Your task to perform on an android device: Clear all items from cart on ebay. Image 0: 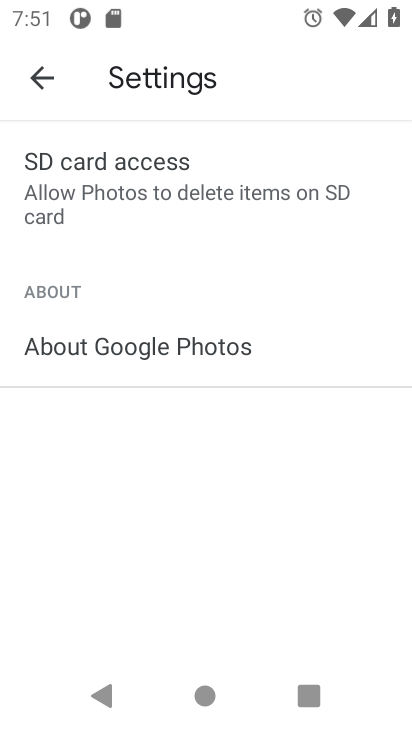
Step 0: press home button
Your task to perform on an android device: Clear all items from cart on ebay. Image 1: 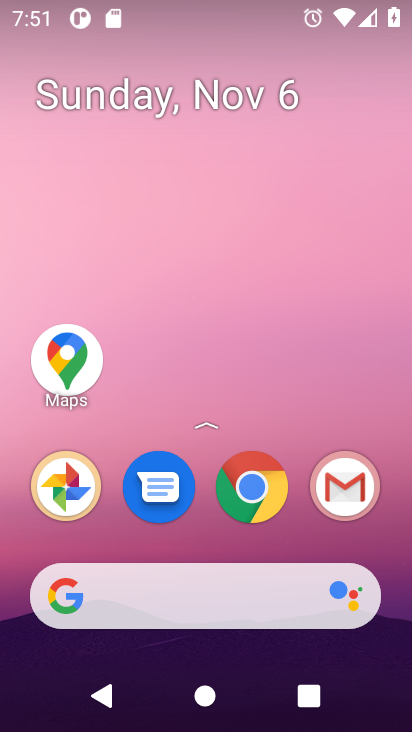
Step 1: click (244, 511)
Your task to perform on an android device: Clear all items from cart on ebay. Image 2: 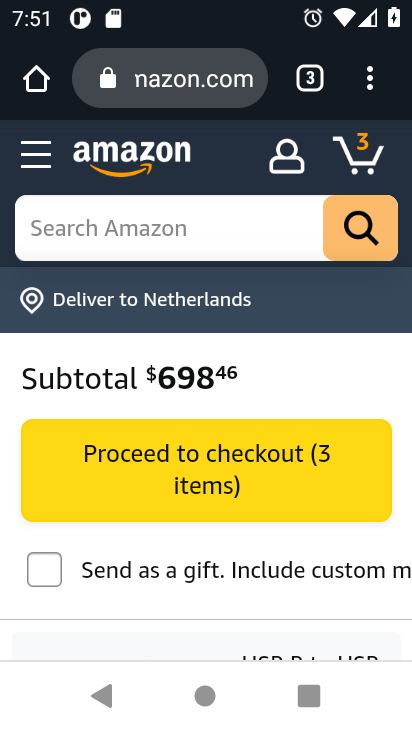
Step 2: click (142, 65)
Your task to perform on an android device: Clear all items from cart on ebay. Image 3: 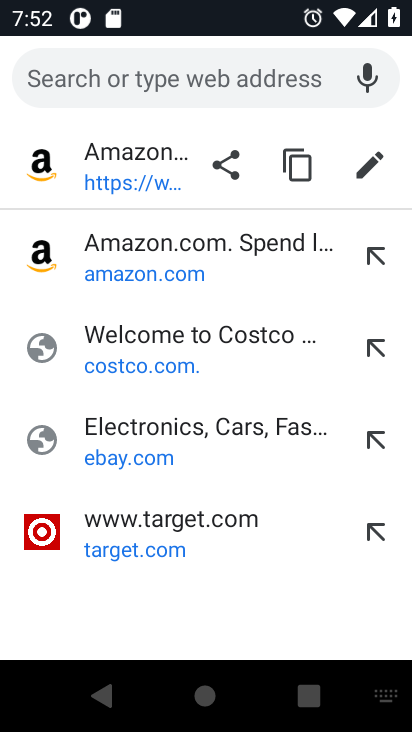
Step 3: click (180, 455)
Your task to perform on an android device: Clear all items from cart on ebay. Image 4: 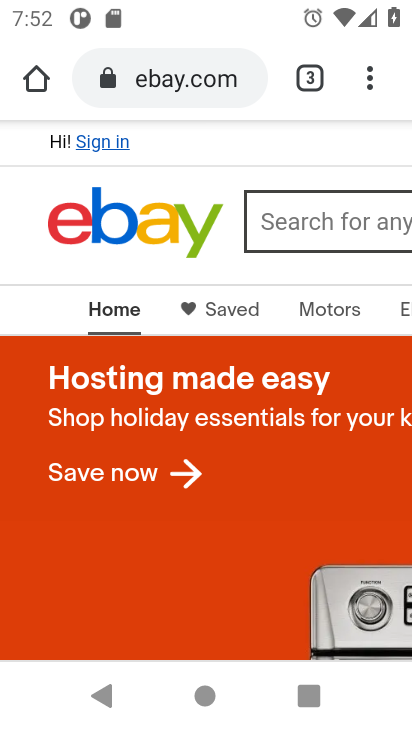
Step 4: drag from (371, 156) to (11, 150)
Your task to perform on an android device: Clear all items from cart on ebay. Image 5: 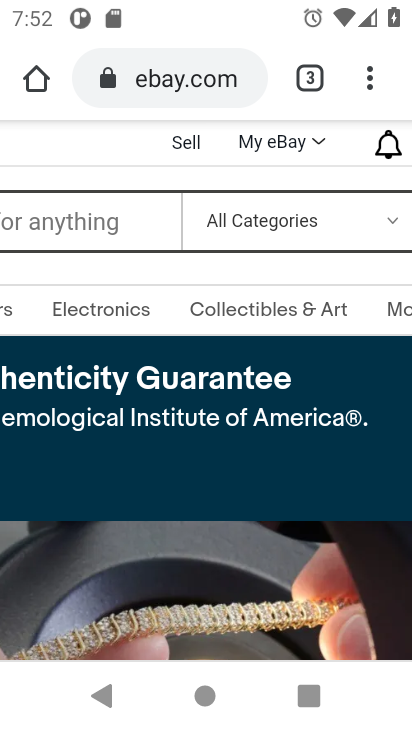
Step 5: drag from (297, 176) to (0, 159)
Your task to perform on an android device: Clear all items from cart on ebay. Image 6: 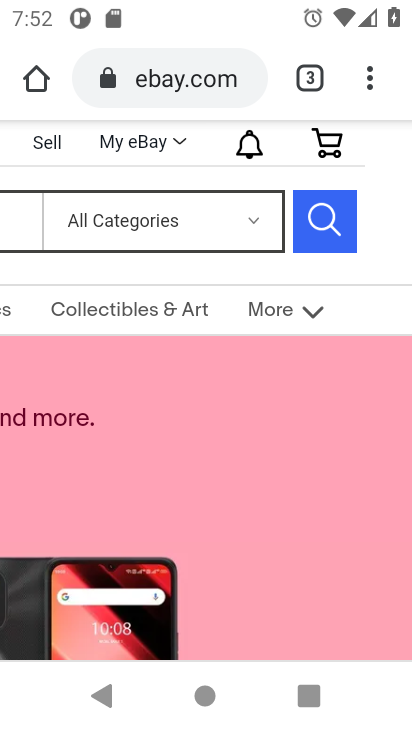
Step 6: click (324, 136)
Your task to perform on an android device: Clear all items from cart on ebay. Image 7: 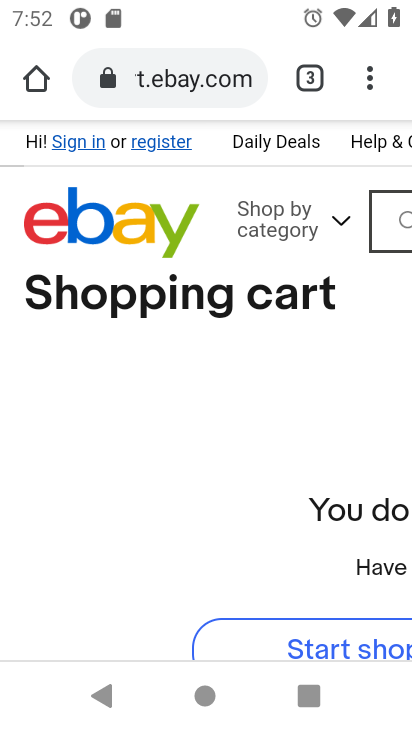
Step 7: task complete